Your task to perform on an android device: Go to sound settings Image 0: 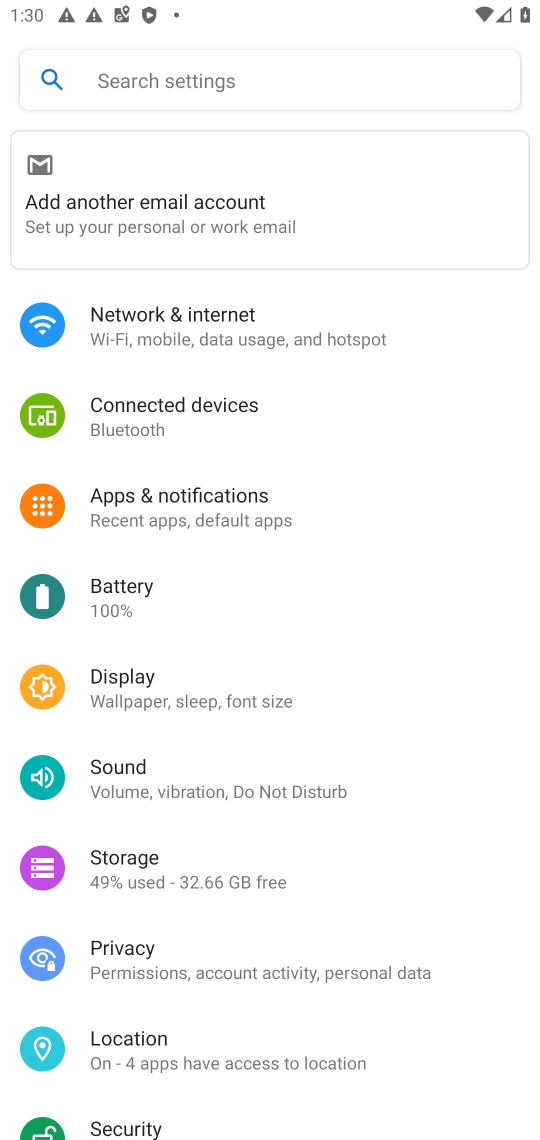
Step 0: press home button
Your task to perform on an android device: Go to sound settings Image 1: 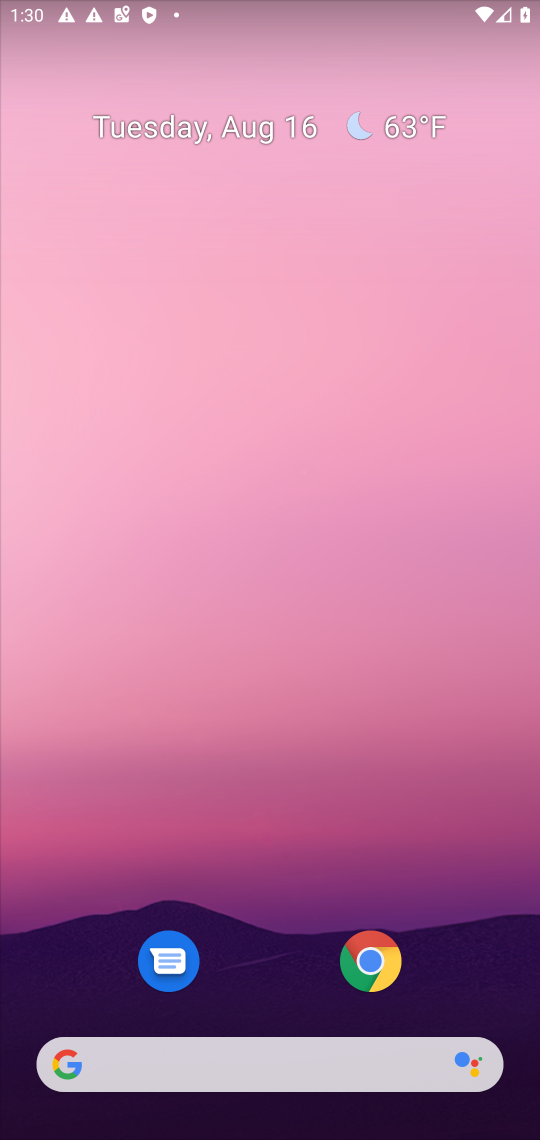
Step 1: drag from (516, 963) to (339, 46)
Your task to perform on an android device: Go to sound settings Image 2: 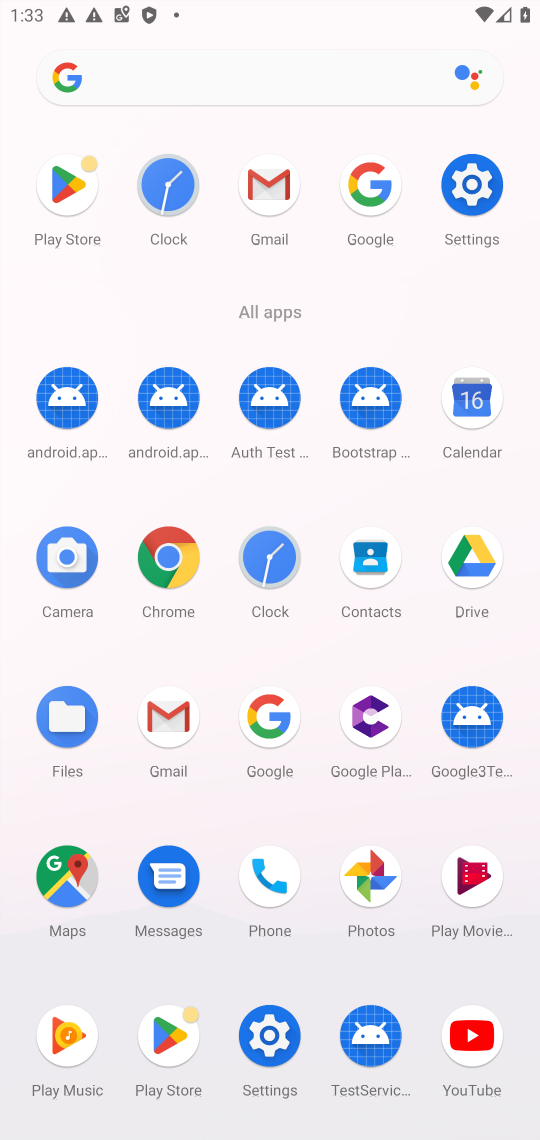
Step 2: click (272, 1058)
Your task to perform on an android device: Go to sound settings Image 3: 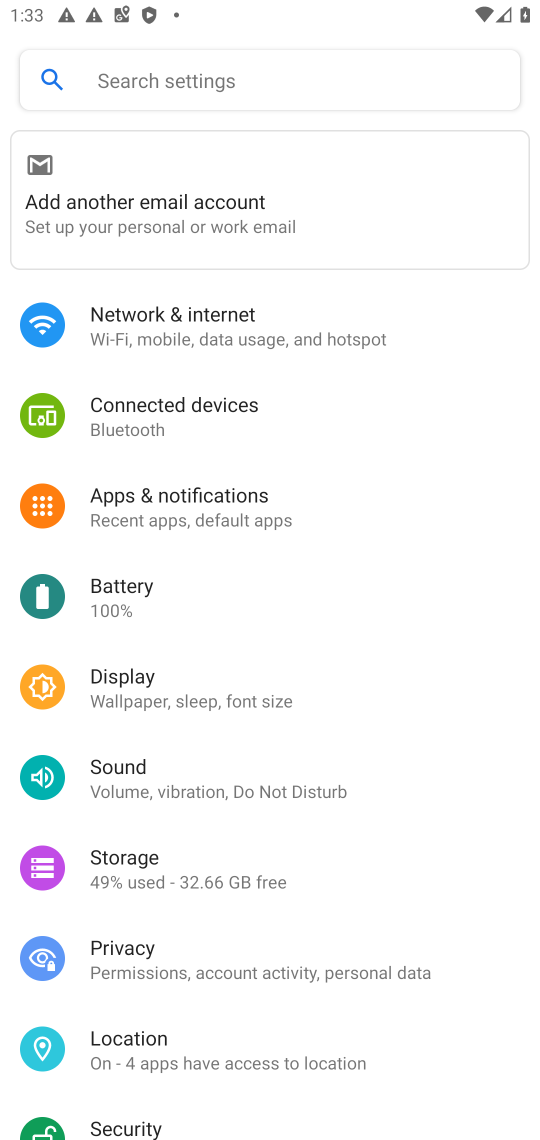
Step 3: click (133, 772)
Your task to perform on an android device: Go to sound settings Image 4: 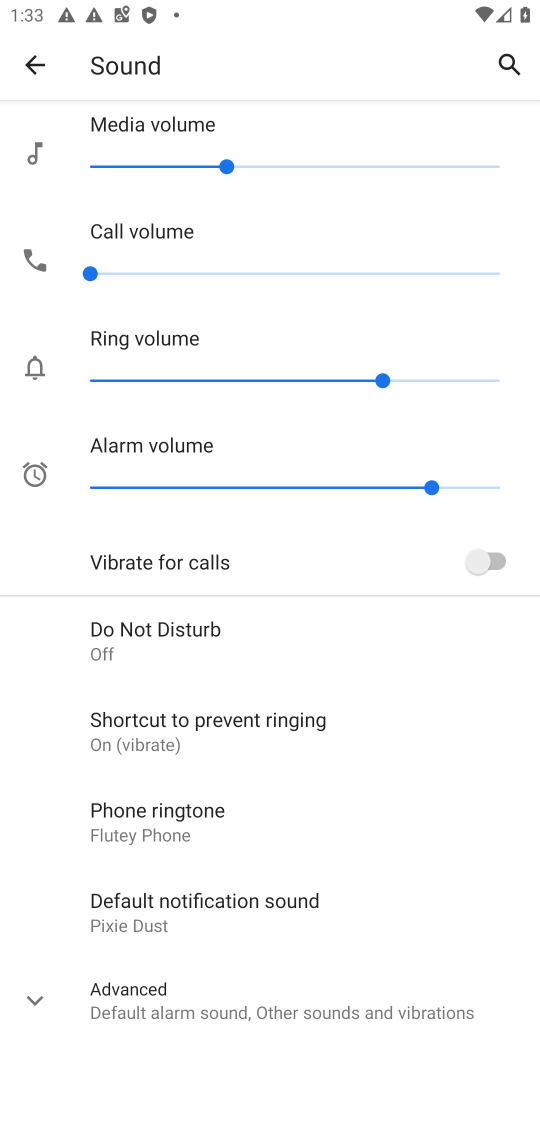
Step 4: task complete